Your task to perform on an android device: Open display settings Image 0: 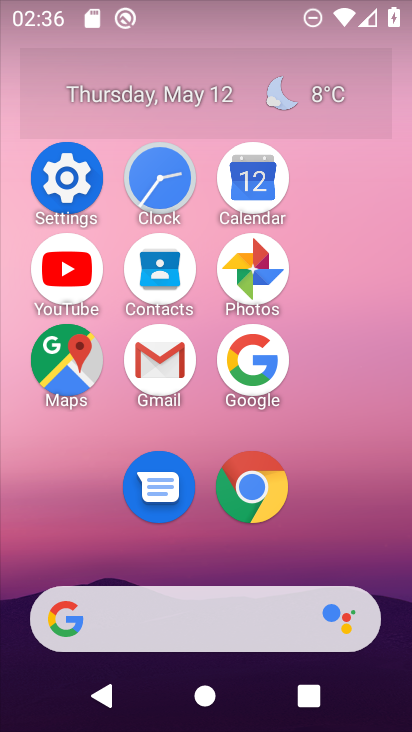
Step 0: click (82, 175)
Your task to perform on an android device: Open display settings Image 1: 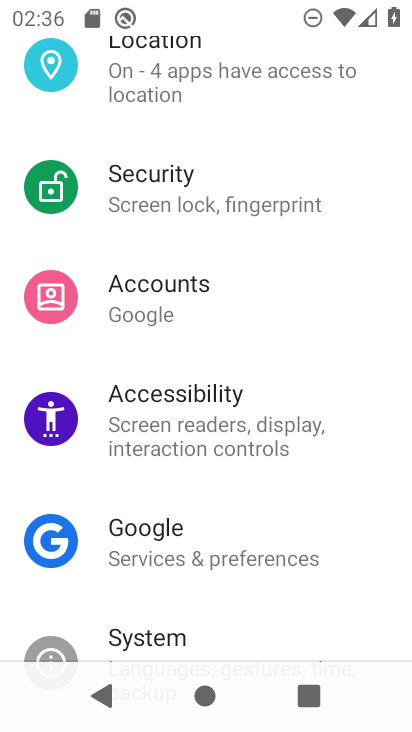
Step 1: drag from (291, 136) to (340, 682)
Your task to perform on an android device: Open display settings Image 2: 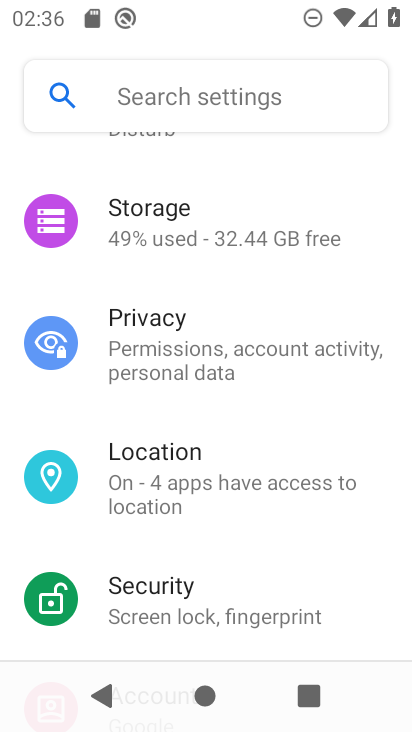
Step 2: drag from (317, 245) to (353, 589)
Your task to perform on an android device: Open display settings Image 3: 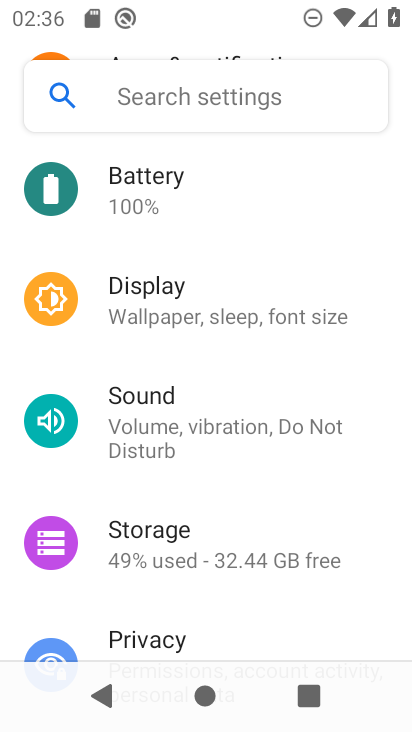
Step 3: click (185, 300)
Your task to perform on an android device: Open display settings Image 4: 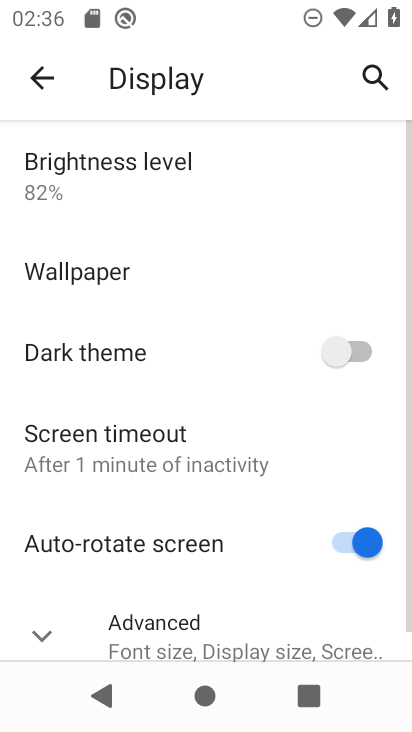
Step 4: task complete